Your task to perform on an android device: Open calendar and show me the second week of next month Image 0: 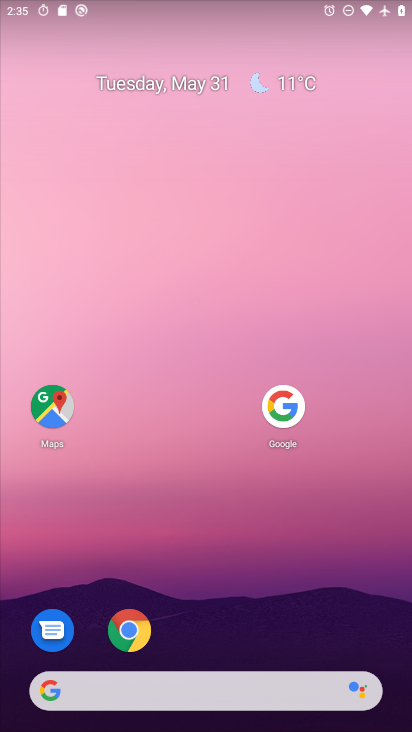
Step 0: drag from (139, 693) to (239, 272)
Your task to perform on an android device: Open calendar and show me the second week of next month Image 1: 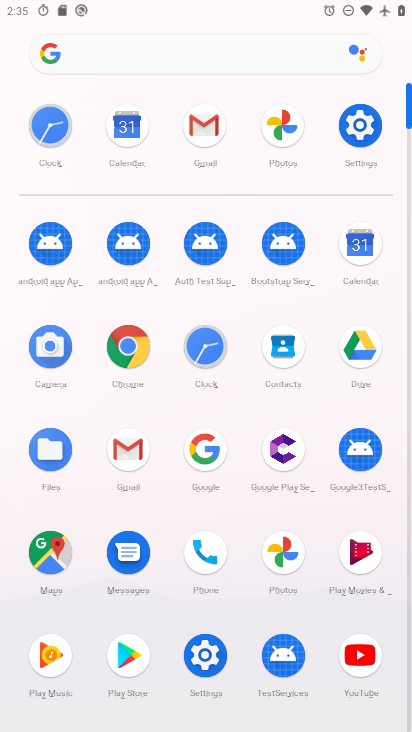
Step 1: click (131, 122)
Your task to perform on an android device: Open calendar and show me the second week of next month Image 2: 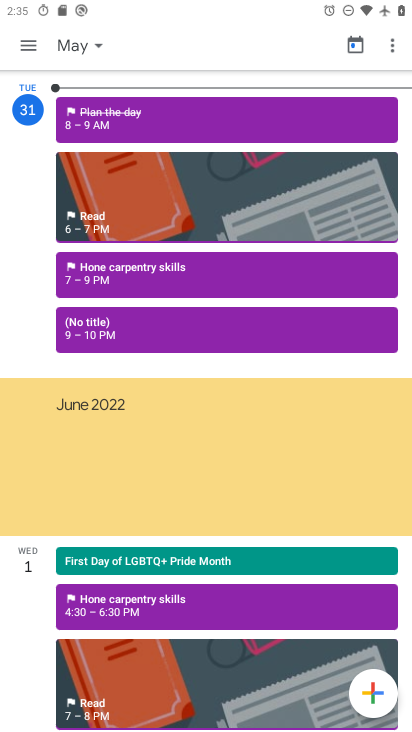
Step 2: click (59, 44)
Your task to perform on an android device: Open calendar and show me the second week of next month Image 3: 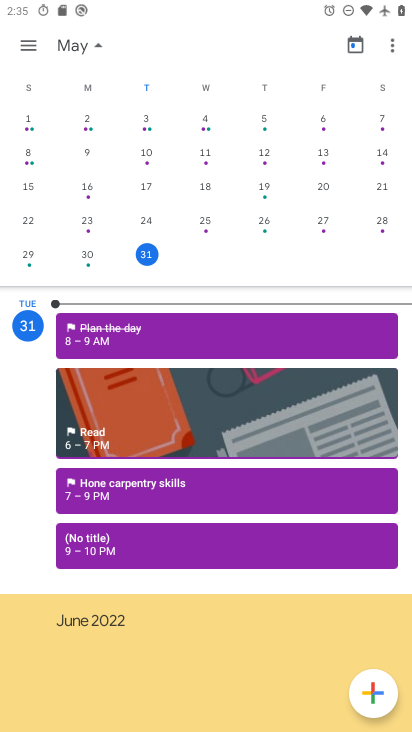
Step 3: drag from (366, 177) to (0, 272)
Your task to perform on an android device: Open calendar and show me the second week of next month Image 4: 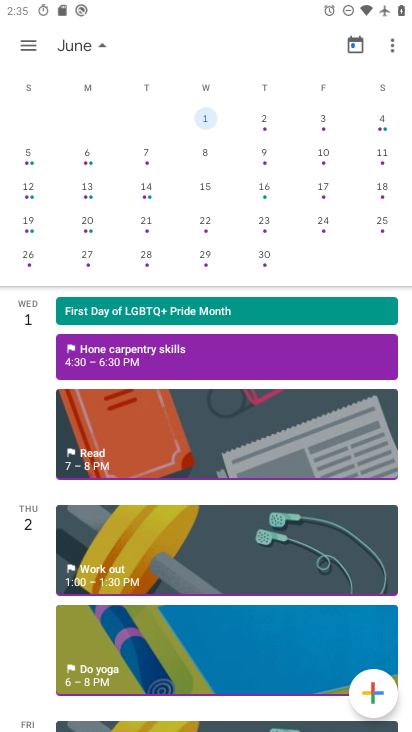
Step 4: click (31, 158)
Your task to perform on an android device: Open calendar and show me the second week of next month Image 5: 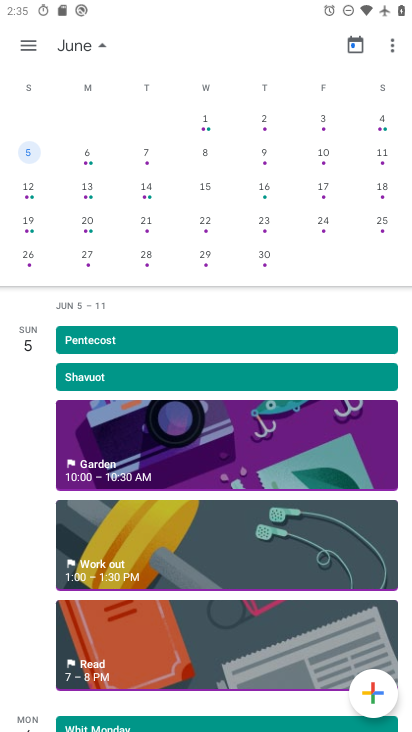
Step 5: click (29, 48)
Your task to perform on an android device: Open calendar and show me the second week of next month Image 6: 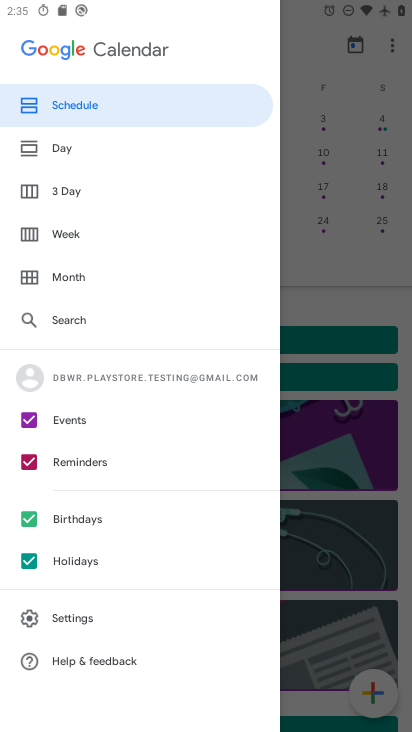
Step 6: click (70, 234)
Your task to perform on an android device: Open calendar and show me the second week of next month Image 7: 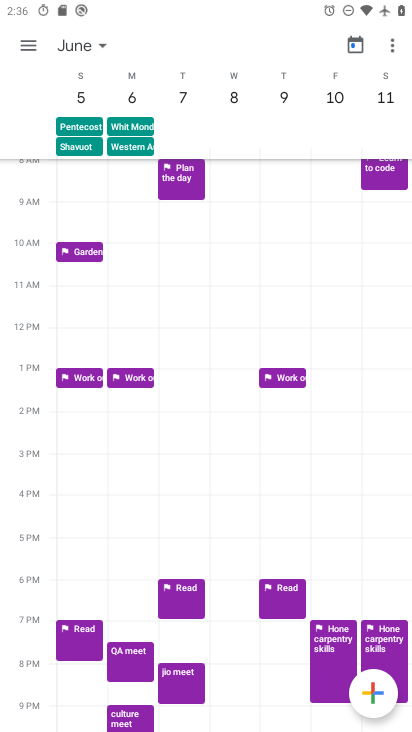
Step 7: task complete